Your task to perform on an android device: turn off smart reply in the gmail app Image 0: 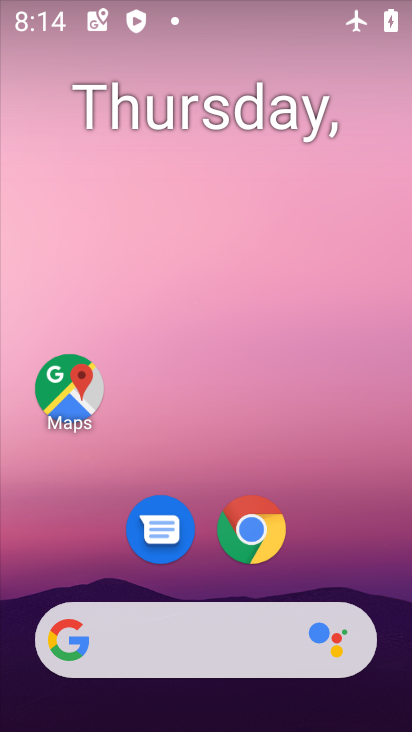
Step 0: drag from (173, 646) to (300, 137)
Your task to perform on an android device: turn off smart reply in the gmail app Image 1: 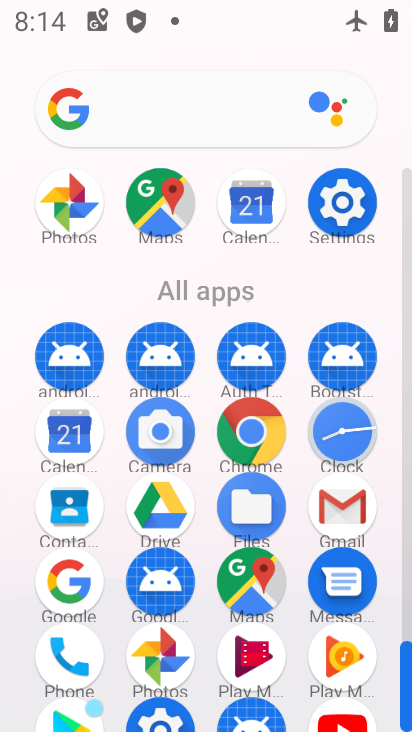
Step 1: click (345, 511)
Your task to perform on an android device: turn off smart reply in the gmail app Image 2: 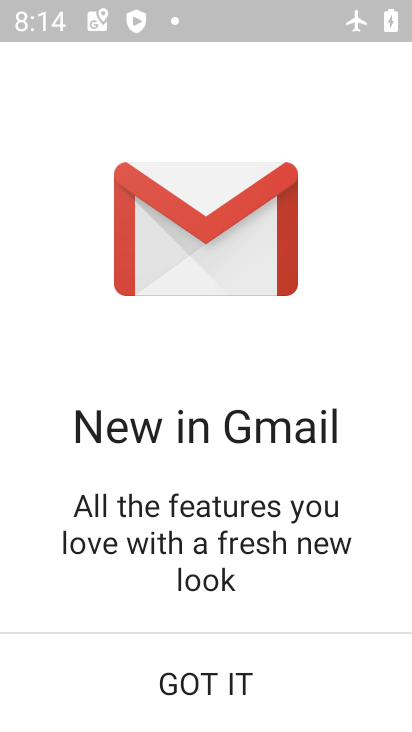
Step 2: click (212, 675)
Your task to perform on an android device: turn off smart reply in the gmail app Image 3: 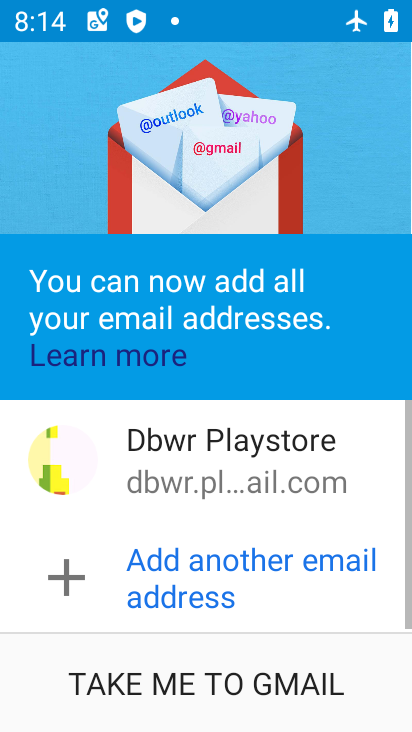
Step 3: click (231, 686)
Your task to perform on an android device: turn off smart reply in the gmail app Image 4: 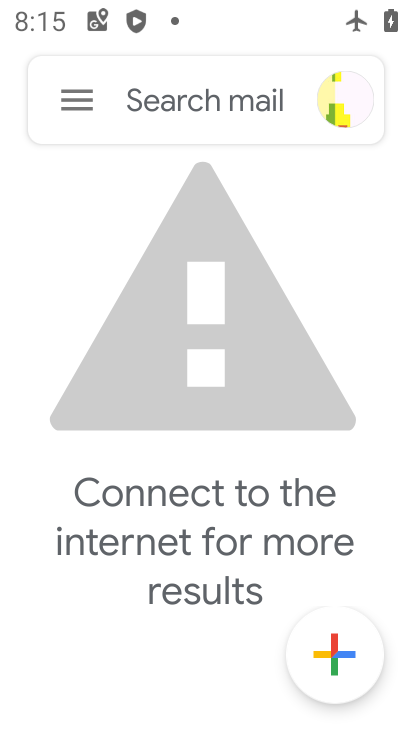
Step 4: click (81, 105)
Your task to perform on an android device: turn off smart reply in the gmail app Image 5: 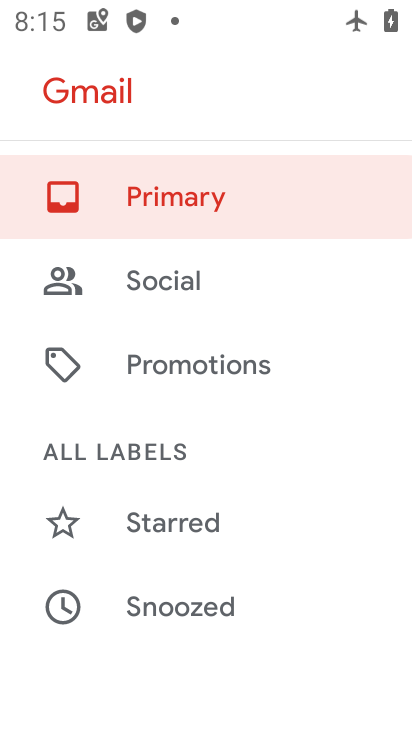
Step 5: drag from (192, 630) to (310, 128)
Your task to perform on an android device: turn off smart reply in the gmail app Image 6: 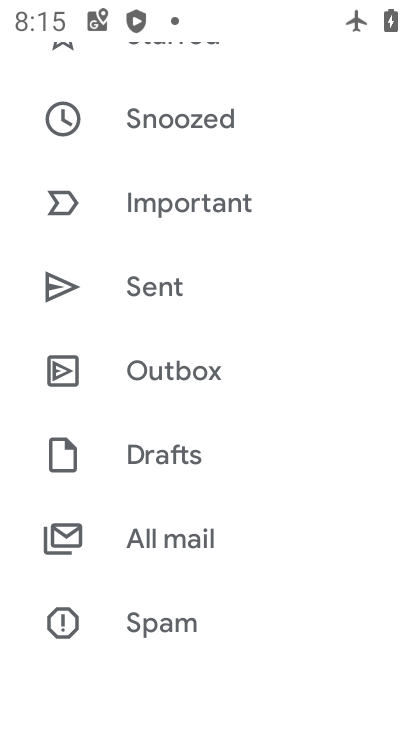
Step 6: drag from (181, 655) to (342, 98)
Your task to perform on an android device: turn off smart reply in the gmail app Image 7: 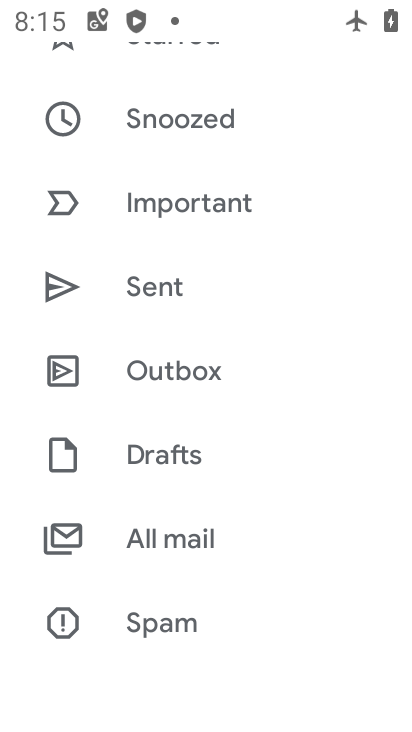
Step 7: drag from (283, 596) to (407, 92)
Your task to perform on an android device: turn off smart reply in the gmail app Image 8: 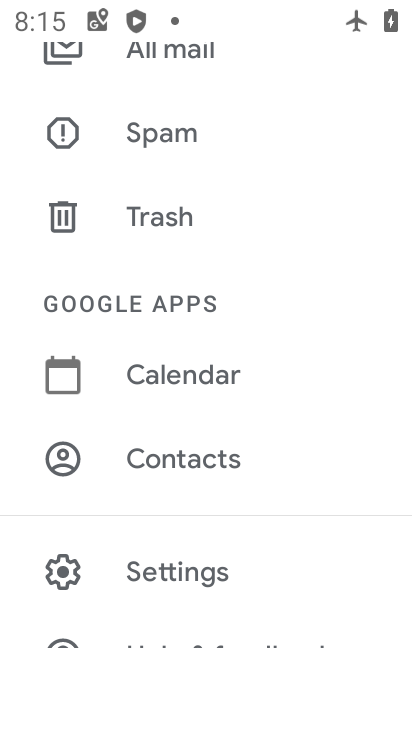
Step 8: click (184, 575)
Your task to perform on an android device: turn off smart reply in the gmail app Image 9: 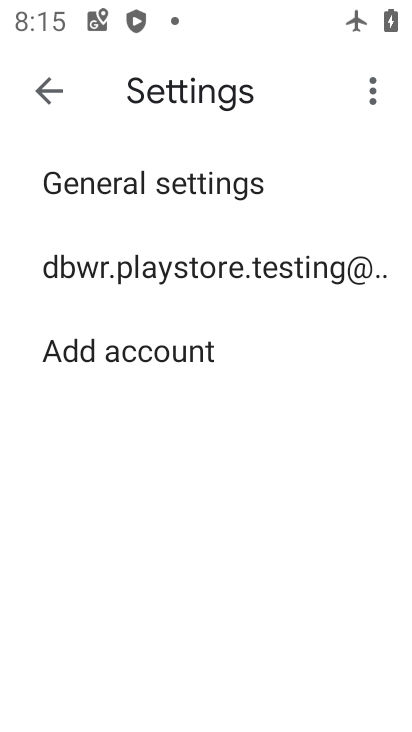
Step 9: click (262, 273)
Your task to perform on an android device: turn off smart reply in the gmail app Image 10: 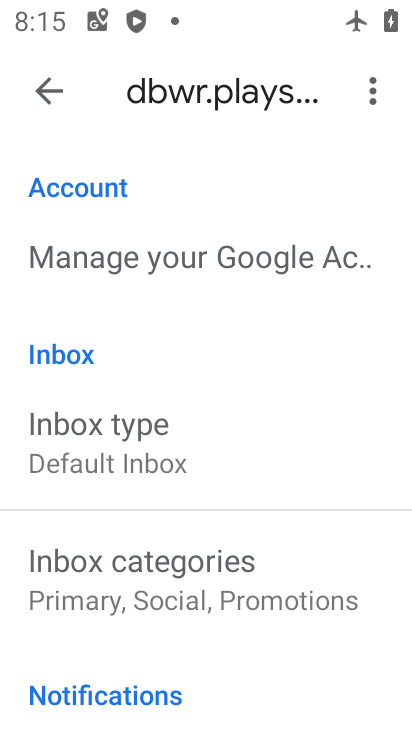
Step 10: drag from (194, 598) to (338, 85)
Your task to perform on an android device: turn off smart reply in the gmail app Image 11: 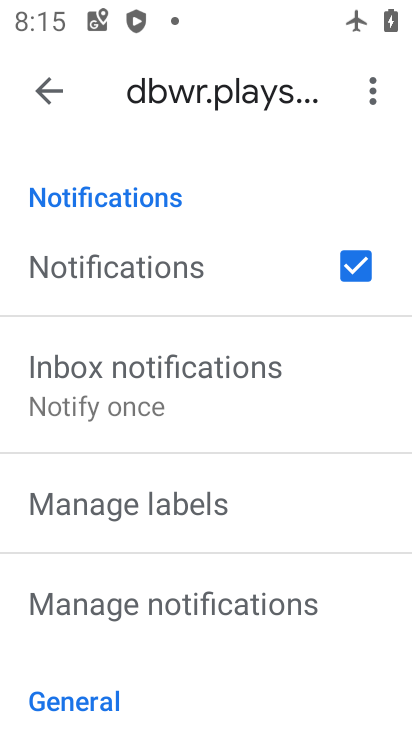
Step 11: drag from (180, 659) to (370, 156)
Your task to perform on an android device: turn off smart reply in the gmail app Image 12: 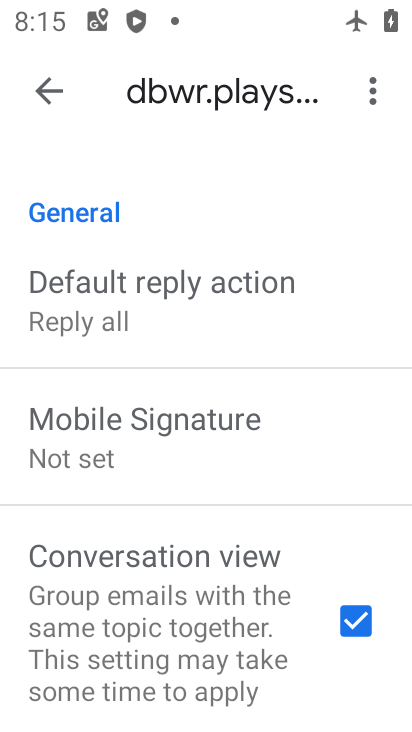
Step 12: drag from (207, 580) to (349, 156)
Your task to perform on an android device: turn off smart reply in the gmail app Image 13: 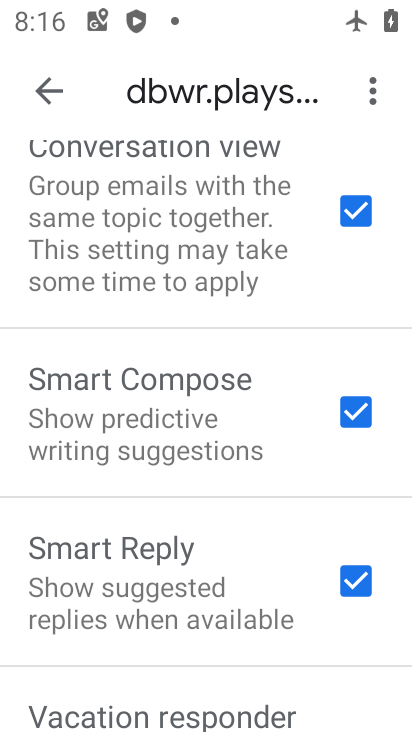
Step 13: drag from (271, 625) to (361, 304)
Your task to perform on an android device: turn off smart reply in the gmail app Image 14: 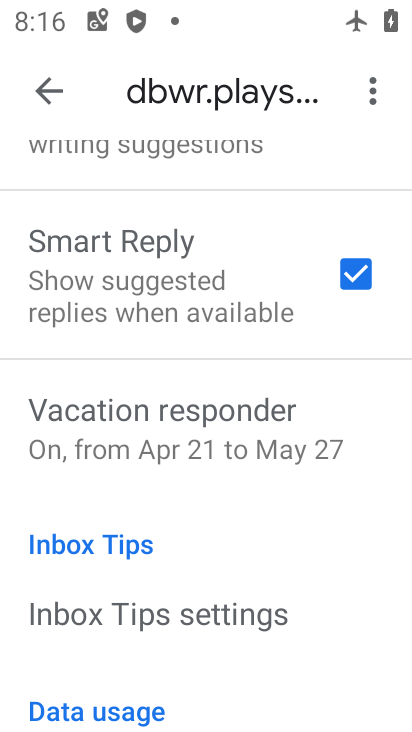
Step 14: click (355, 280)
Your task to perform on an android device: turn off smart reply in the gmail app Image 15: 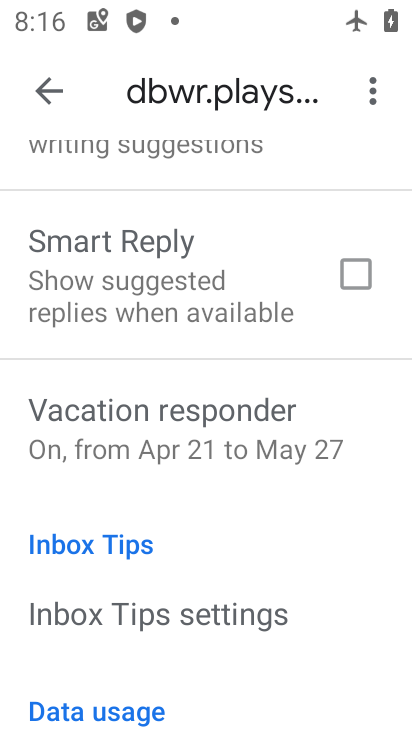
Step 15: task complete